Your task to perform on an android device: check google app version Image 0: 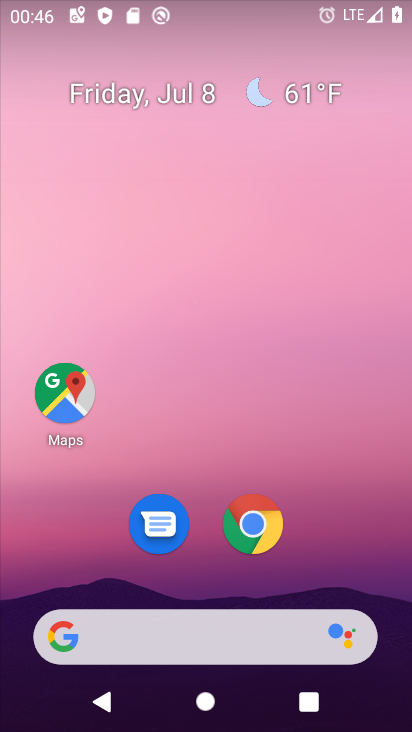
Step 0: drag from (323, 534) to (314, 5)
Your task to perform on an android device: check google app version Image 1: 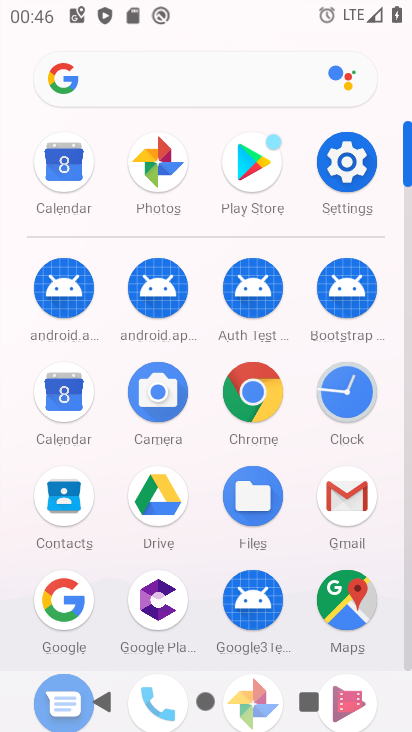
Step 1: drag from (192, 565) to (199, 7)
Your task to perform on an android device: check google app version Image 2: 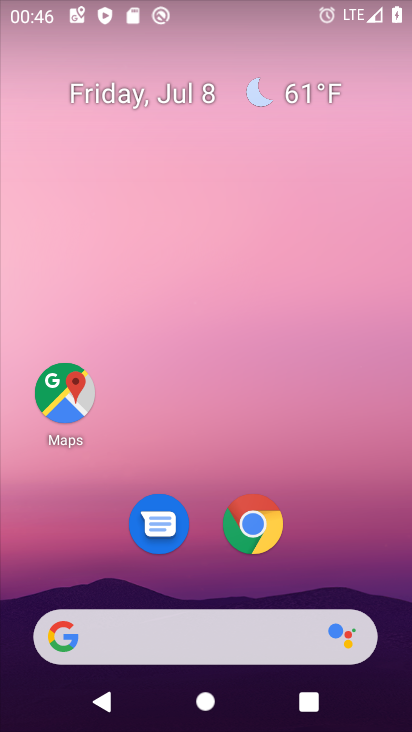
Step 2: drag from (200, 560) to (208, 24)
Your task to perform on an android device: check google app version Image 3: 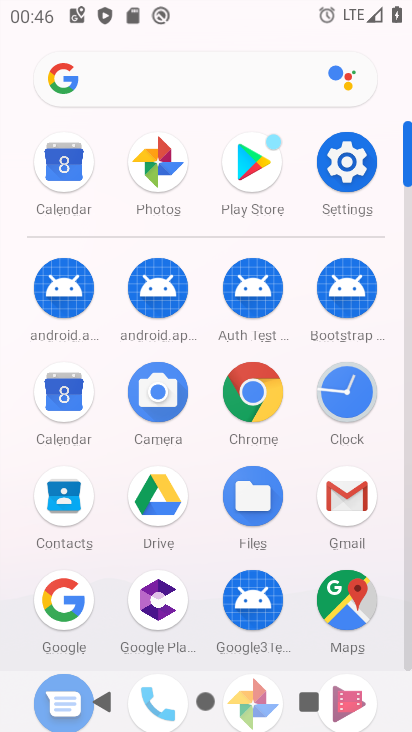
Step 3: click (63, 597)
Your task to perform on an android device: check google app version Image 4: 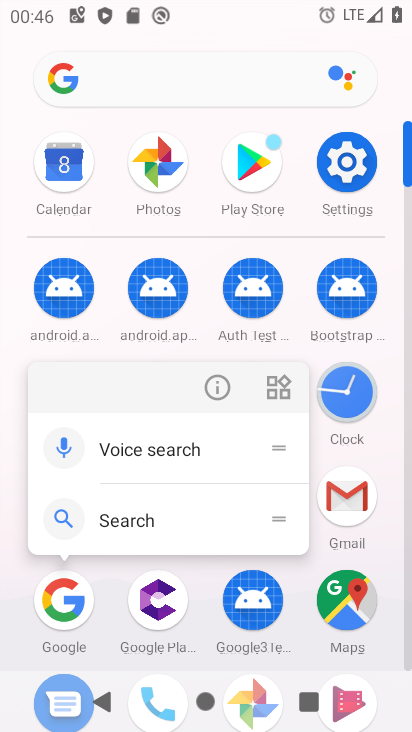
Step 4: click (66, 585)
Your task to perform on an android device: check google app version Image 5: 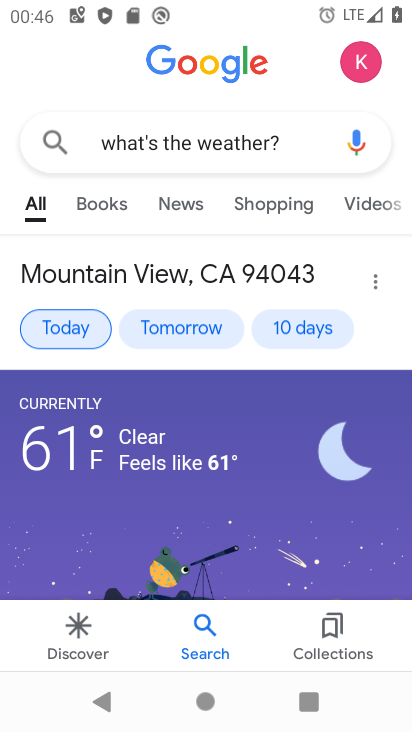
Step 5: click (358, 64)
Your task to perform on an android device: check google app version Image 6: 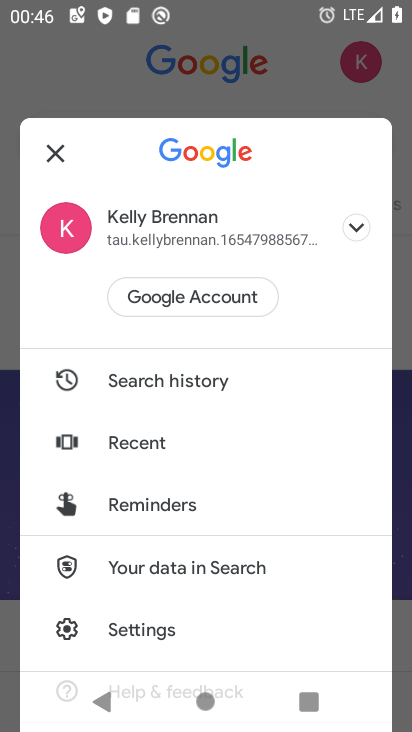
Step 6: drag from (195, 592) to (223, 303)
Your task to perform on an android device: check google app version Image 7: 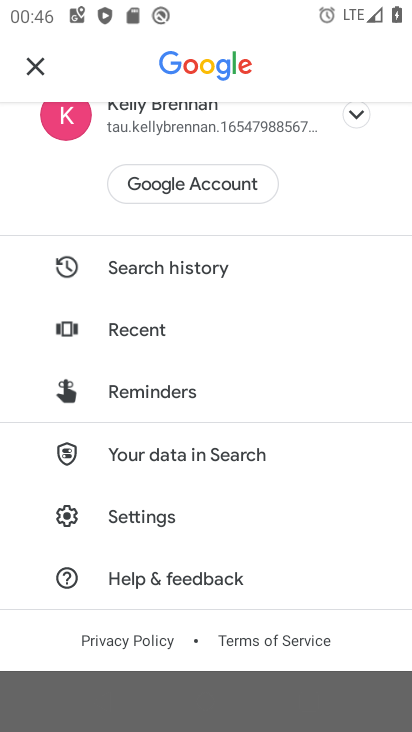
Step 7: click (146, 519)
Your task to perform on an android device: check google app version Image 8: 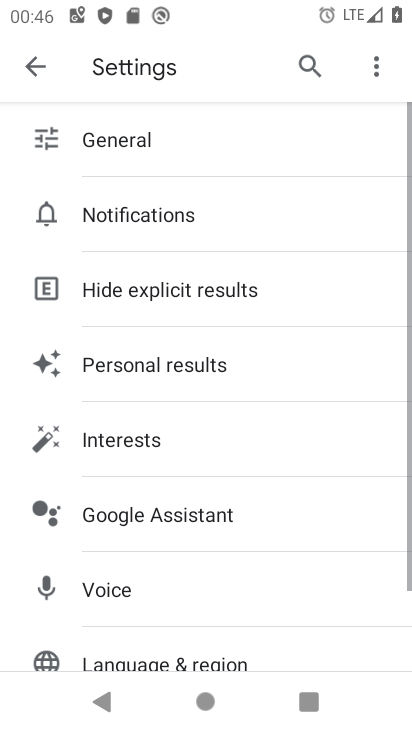
Step 8: drag from (220, 583) to (269, 276)
Your task to perform on an android device: check google app version Image 9: 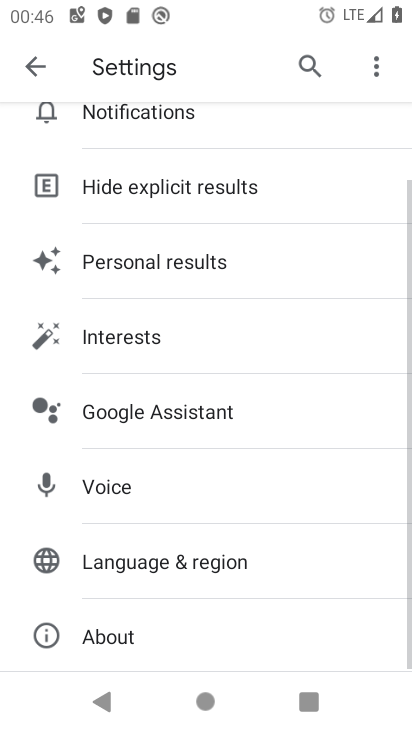
Step 9: click (114, 628)
Your task to perform on an android device: check google app version Image 10: 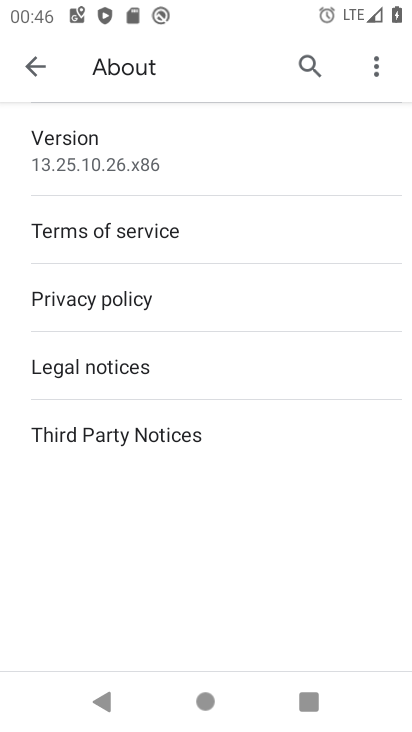
Step 10: task complete